Your task to perform on an android device: turn on wifi Image 0: 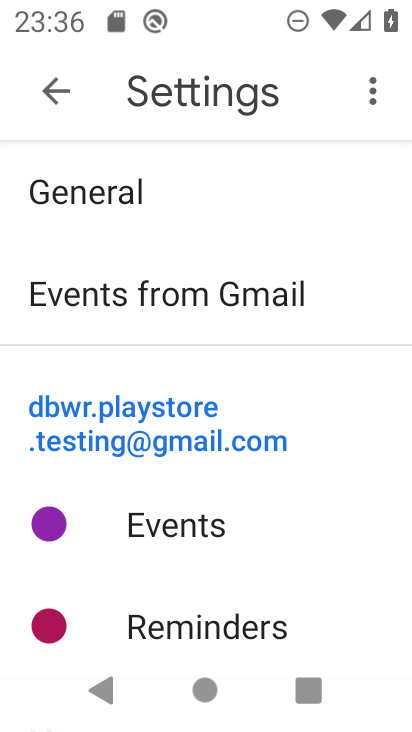
Step 0: press home button
Your task to perform on an android device: turn on wifi Image 1: 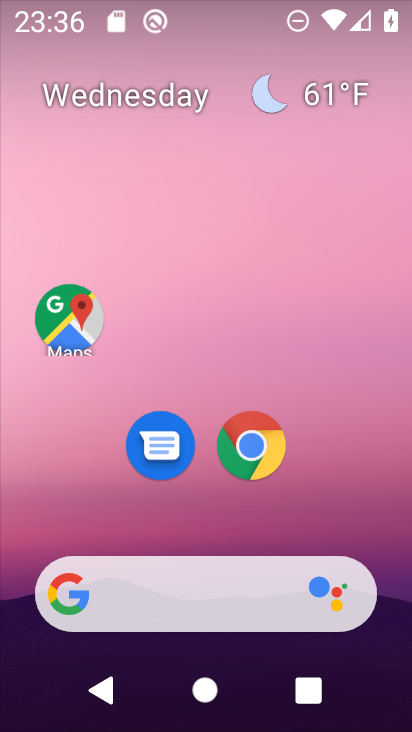
Step 1: drag from (341, 272) to (349, 171)
Your task to perform on an android device: turn on wifi Image 2: 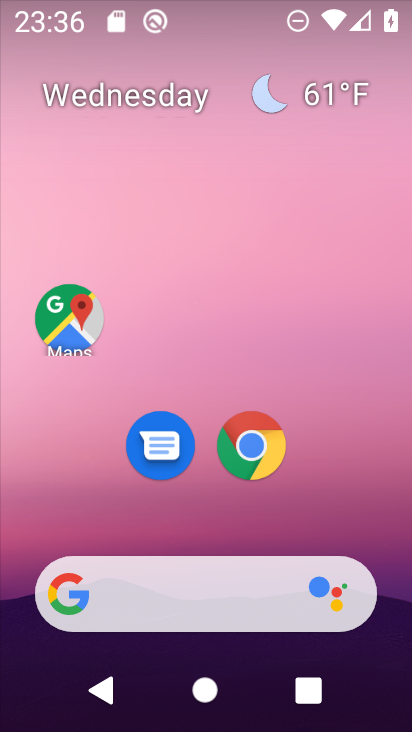
Step 2: drag from (369, 548) to (358, 102)
Your task to perform on an android device: turn on wifi Image 3: 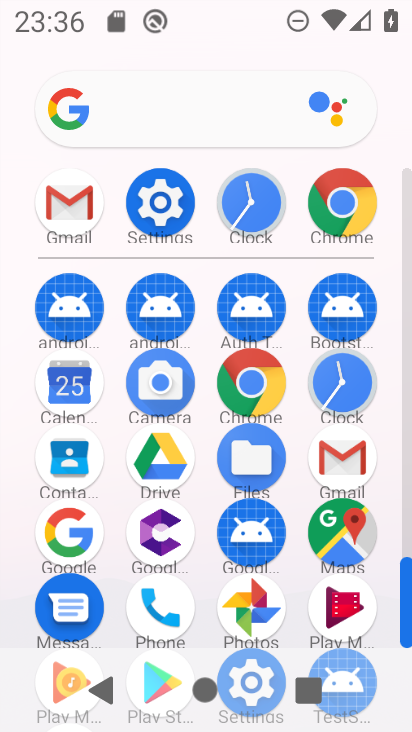
Step 3: click (134, 183)
Your task to perform on an android device: turn on wifi Image 4: 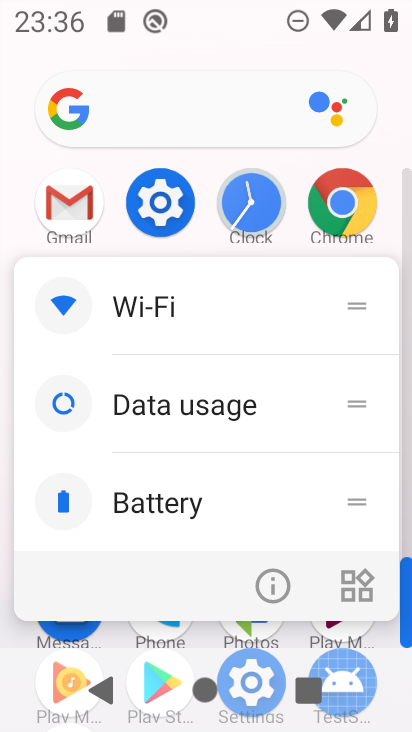
Step 4: click (165, 212)
Your task to perform on an android device: turn on wifi Image 5: 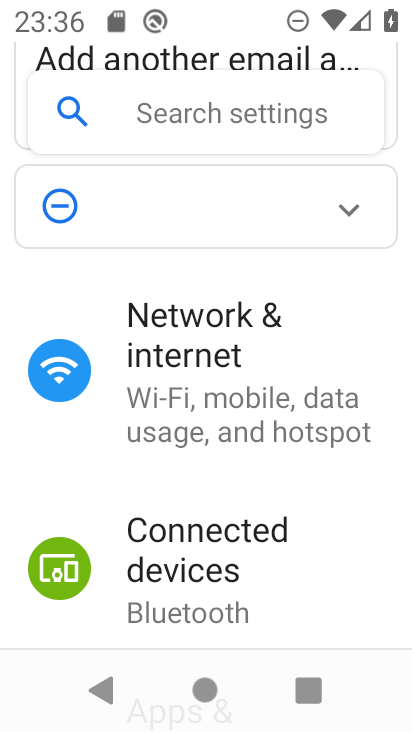
Step 5: drag from (258, 437) to (276, 323)
Your task to perform on an android device: turn on wifi Image 6: 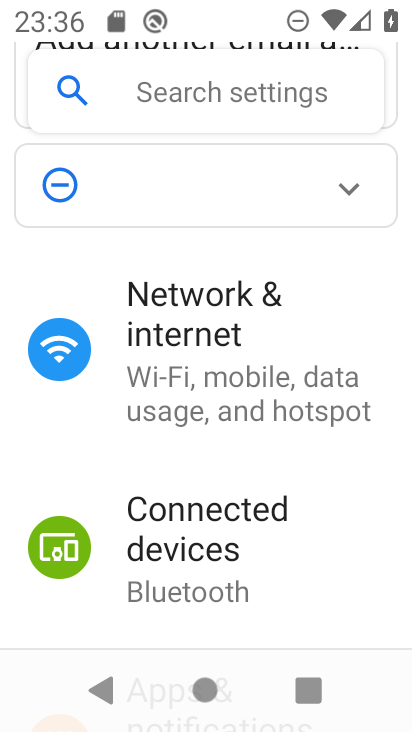
Step 6: drag from (306, 547) to (307, 296)
Your task to perform on an android device: turn on wifi Image 7: 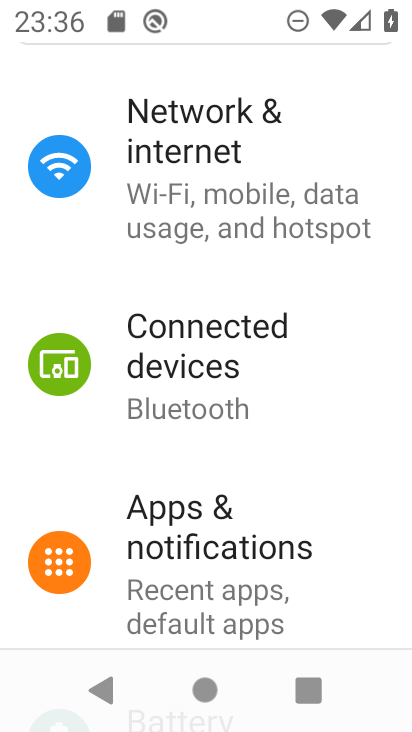
Step 7: drag from (302, 243) to (302, 442)
Your task to perform on an android device: turn on wifi Image 8: 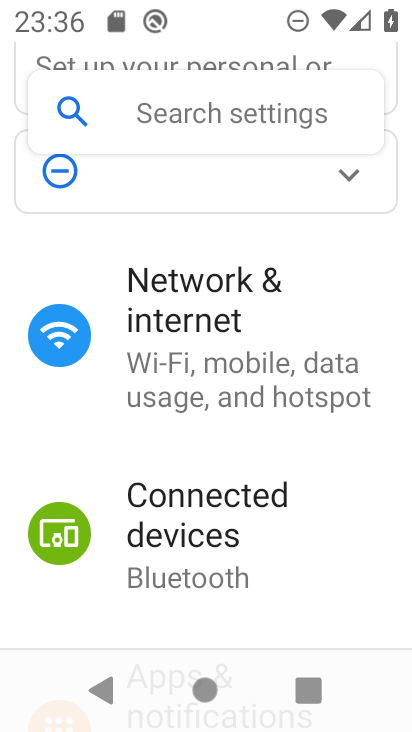
Step 8: click (291, 383)
Your task to perform on an android device: turn on wifi Image 9: 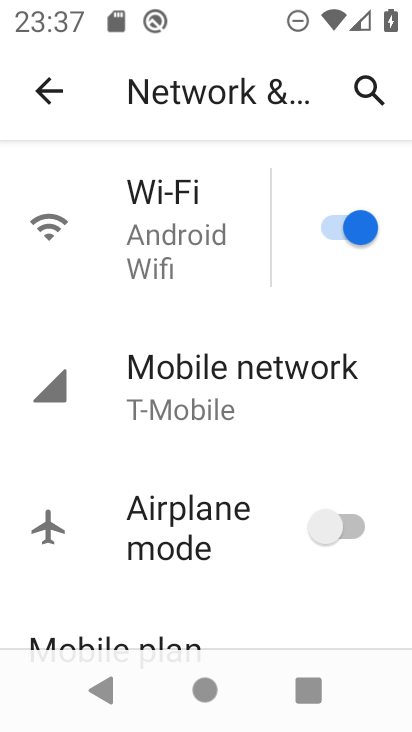
Step 9: task complete